Your task to perform on an android device: Open calendar and show me the first week of next month Image 0: 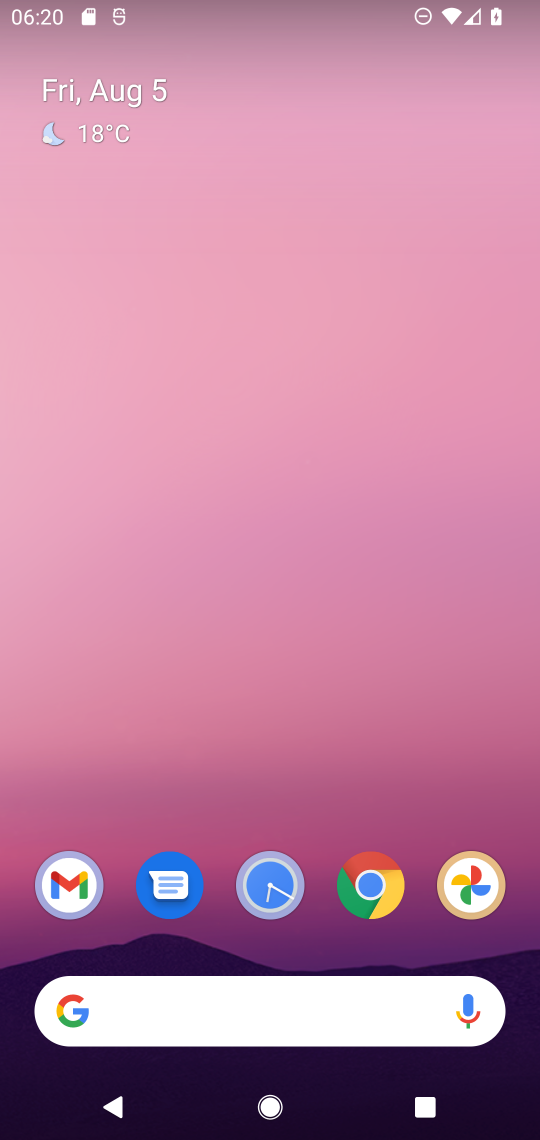
Step 0: drag from (329, 950) to (327, 131)
Your task to perform on an android device: Open calendar and show me the first week of next month Image 1: 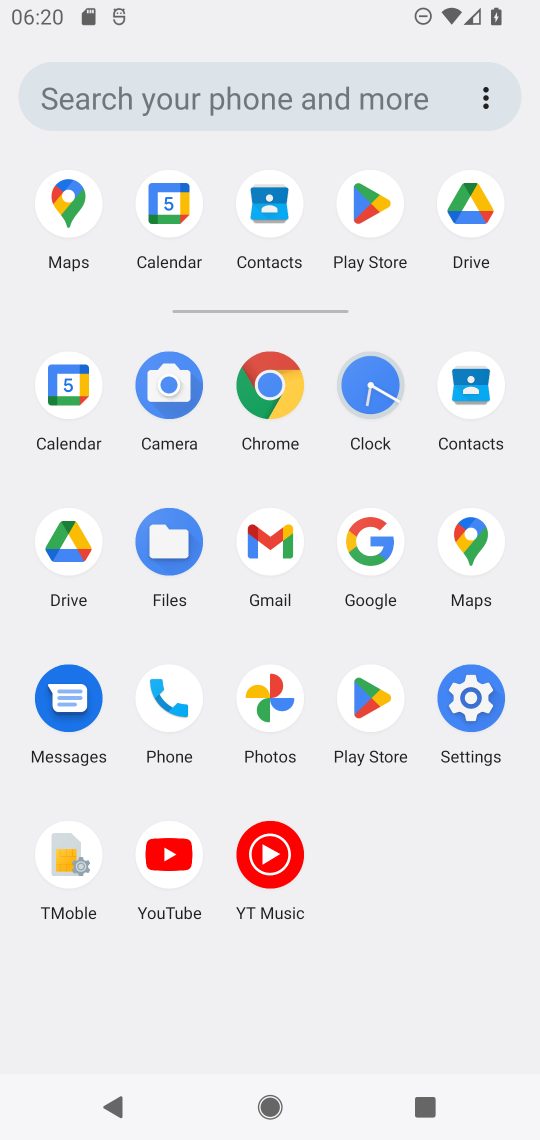
Step 1: click (65, 390)
Your task to perform on an android device: Open calendar and show me the first week of next month Image 2: 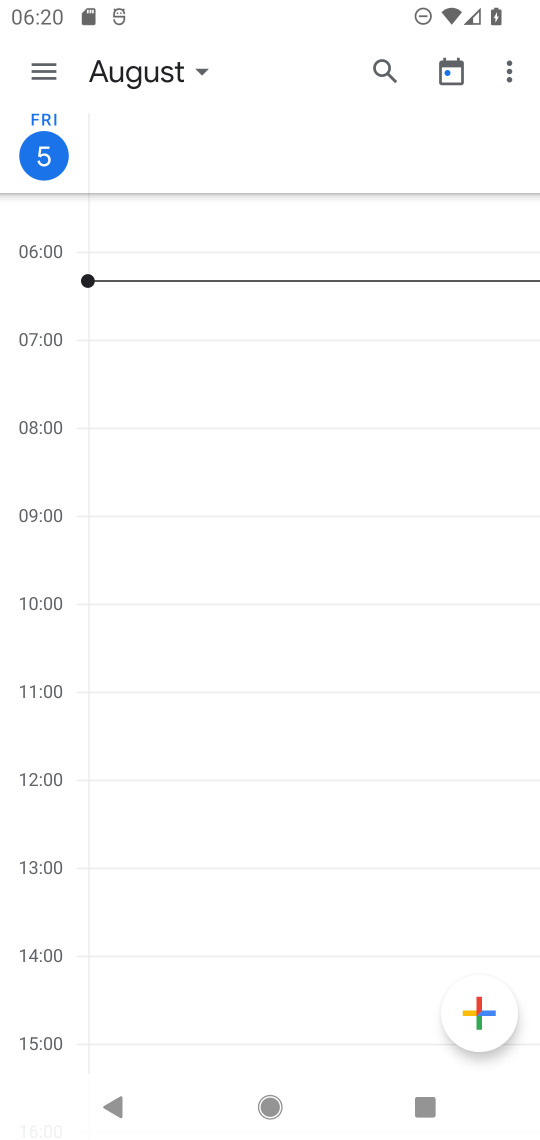
Step 2: click (199, 70)
Your task to perform on an android device: Open calendar and show me the first week of next month Image 3: 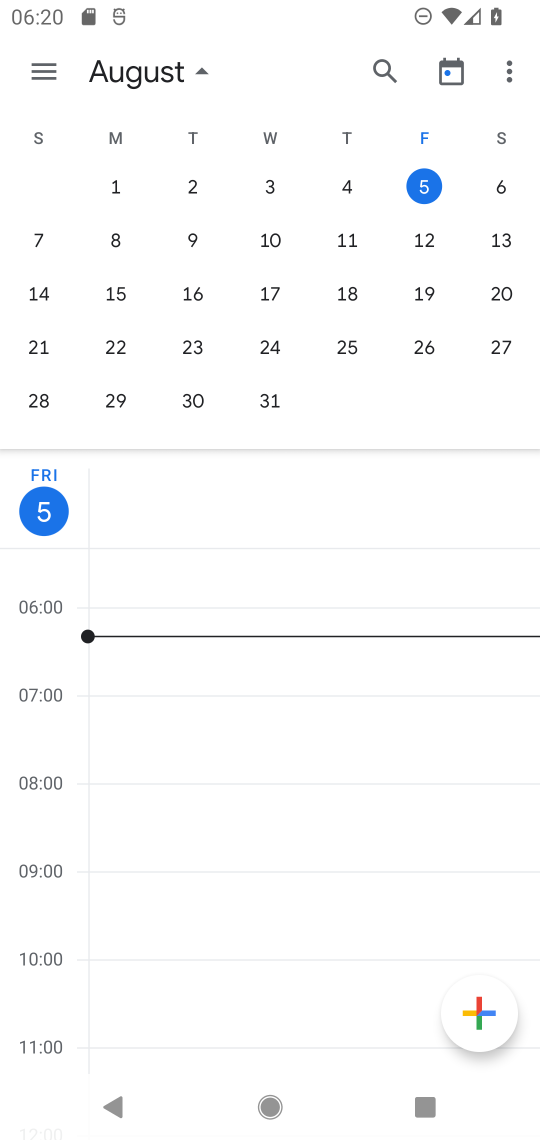
Step 3: drag from (503, 292) to (56, 304)
Your task to perform on an android device: Open calendar and show me the first week of next month Image 4: 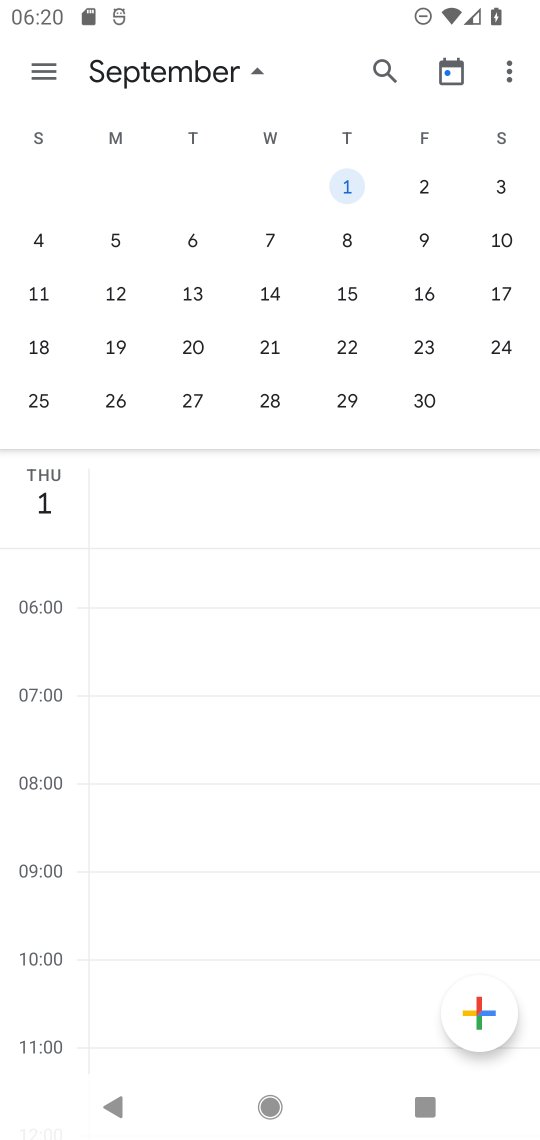
Step 4: click (44, 77)
Your task to perform on an android device: Open calendar and show me the first week of next month Image 5: 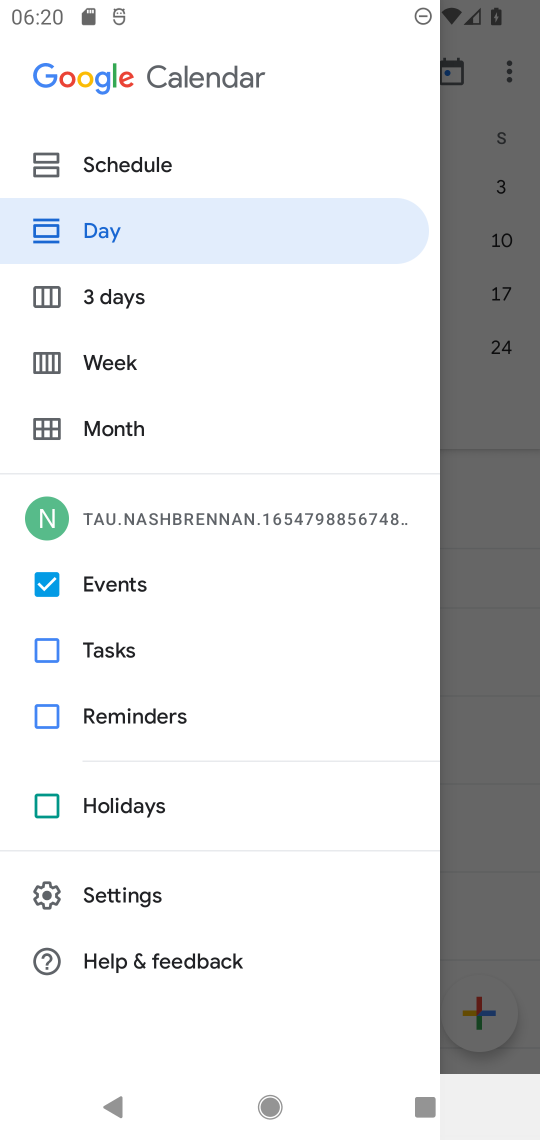
Step 5: click (107, 359)
Your task to perform on an android device: Open calendar and show me the first week of next month Image 6: 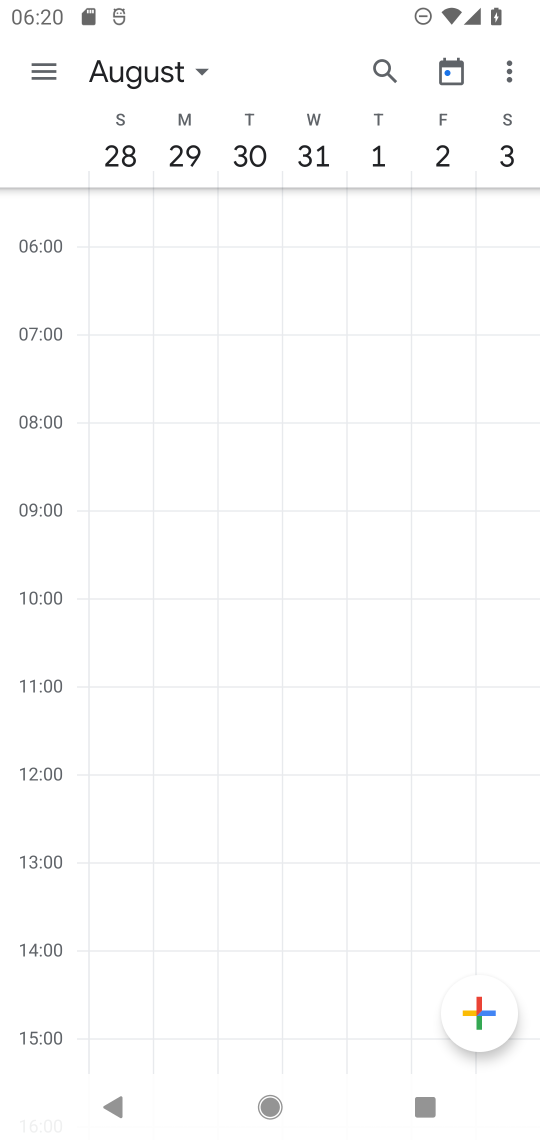
Step 6: task complete